Your task to perform on an android device: turn off sleep mode Image 0: 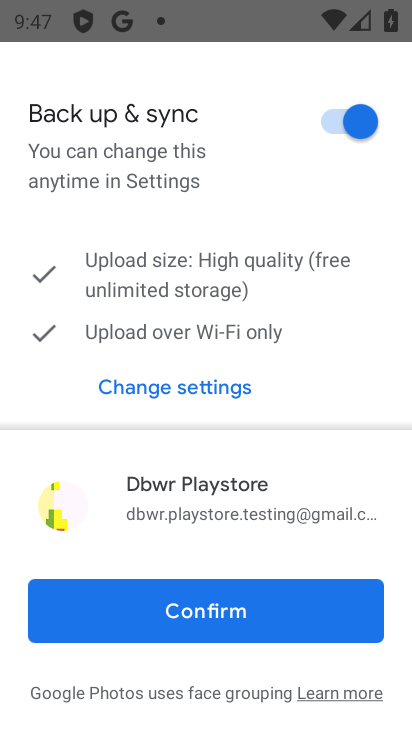
Step 0: press home button
Your task to perform on an android device: turn off sleep mode Image 1: 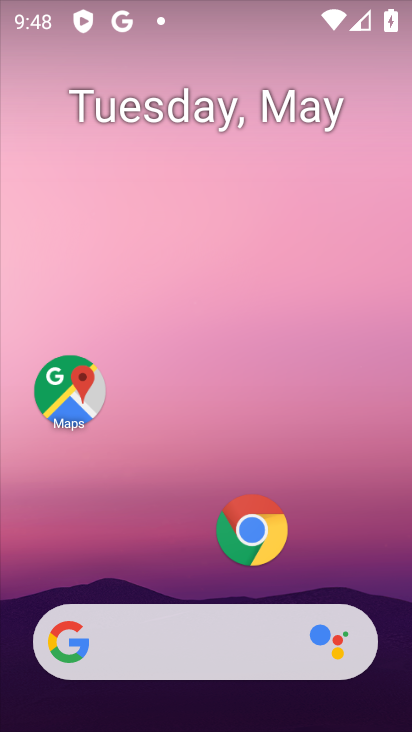
Step 1: drag from (179, 559) to (250, 217)
Your task to perform on an android device: turn off sleep mode Image 2: 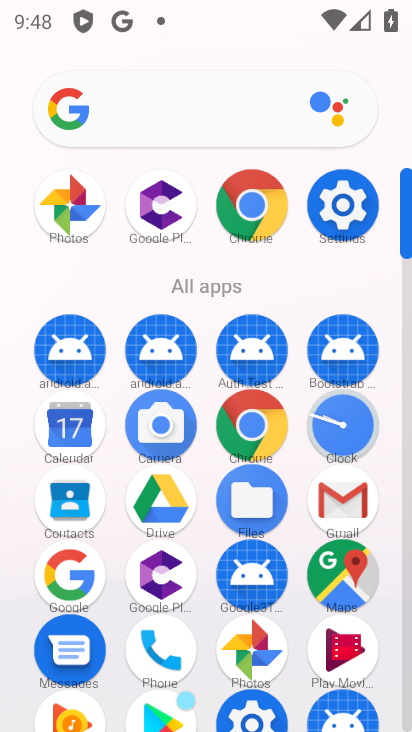
Step 2: click (344, 204)
Your task to perform on an android device: turn off sleep mode Image 3: 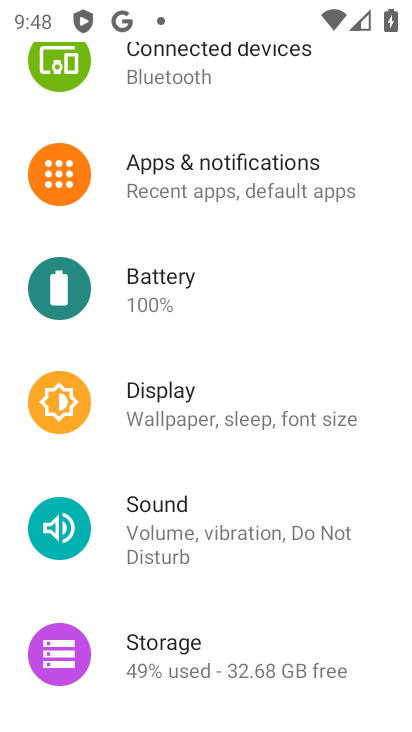
Step 3: click (197, 405)
Your task to perform on an android device: turn off sleep mode Image 4: 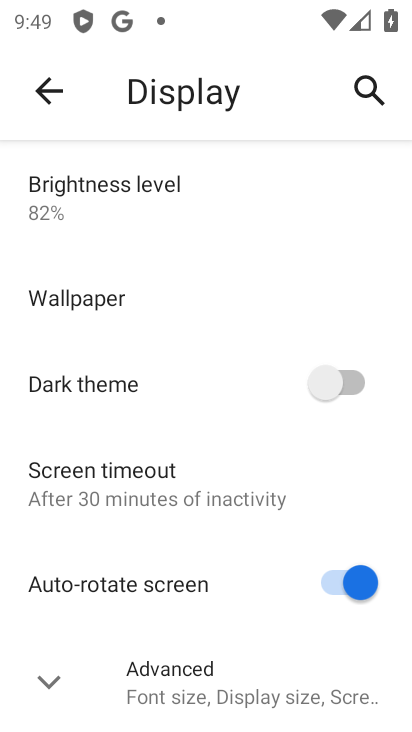
Step 4: task complete